Your task to perform on an android device: remove spam from my inbox in the gmail app Image 0: 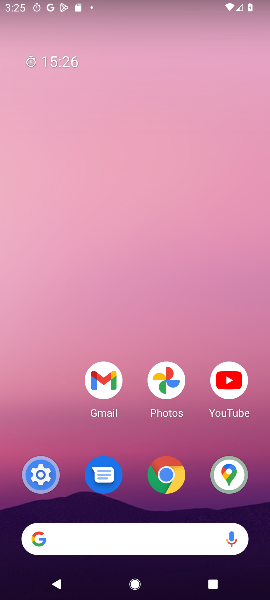
Step 0: press home button
Your task to perform on an android device: remove spam from my inbox in the gmail app Image 1: 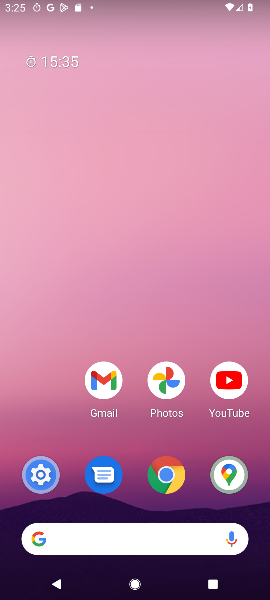
Step 1: drag from (65, 395) to (65, 136)
Your task to perform on an android device: remove spam from my inbox in the gmail app Image 2: 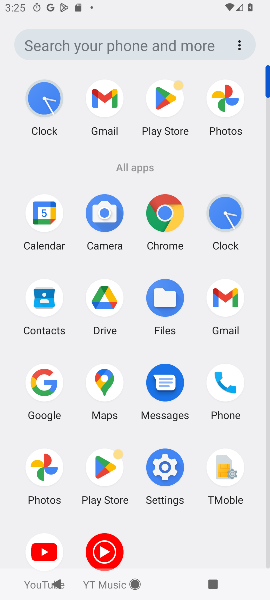
Step 2: click (228, 302)
Your task to perform on an android device: remove spam from my inbox in the gmail app Image 3: 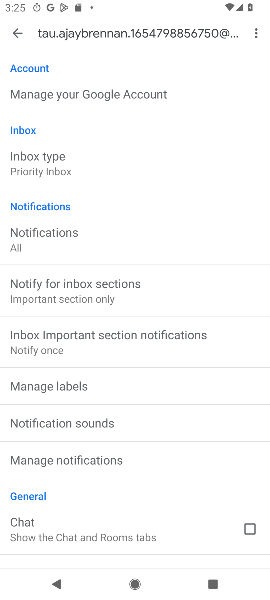
Step 3: drag from (198, 438) to (205, 368)
Your task to perform on an android device: remove spam from my inbox in the gmail app Image 4: 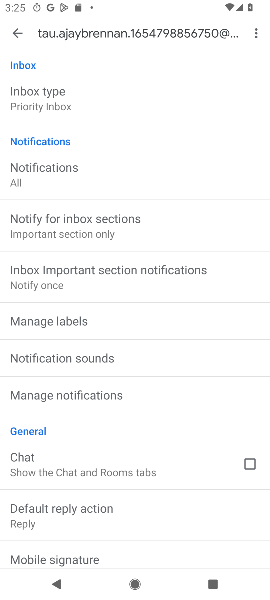
Step 4: press back button
Your task to perform on an android device: remove spam from my inbox in the gmail app Image 5: 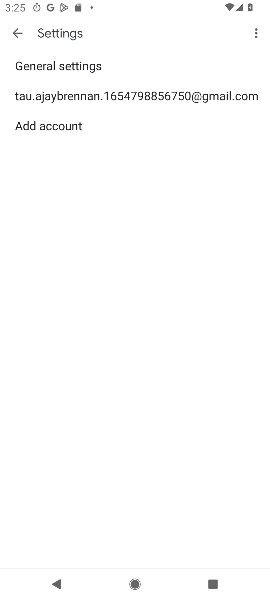
Step 5: press back button
Your task to perform on an android device: remove spam from my inbox in the gmail app Image 6: 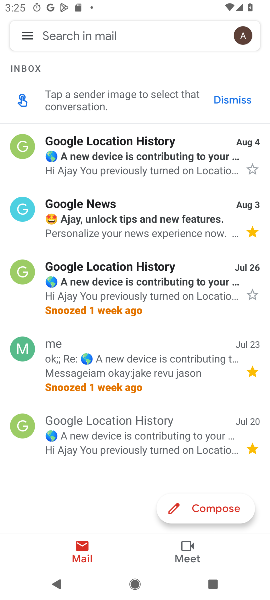
Step 6: click (21, 31)
Your task to perform on an android device: remove spam from my inbox in the gmail app Image 7: 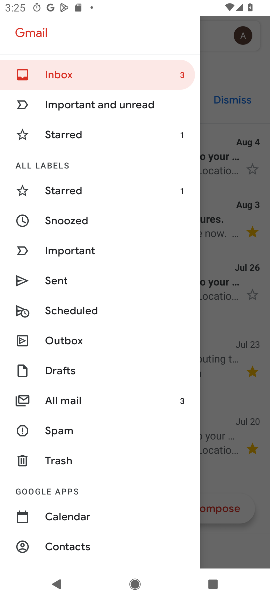
Step 7: drag from (67, 340) to (78, 217)
Your task to perform on an android device: remove spam from my inbox in the gmail app Image 8: 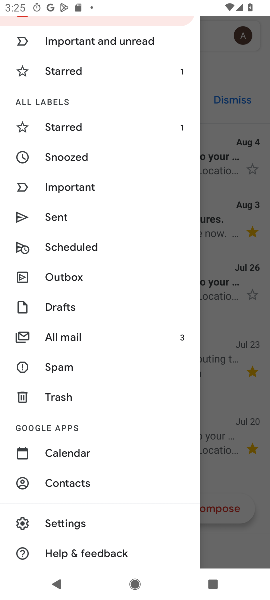
Step 8: drag from (120, 402) to (136, 284)
Your task to perform on an android device: remove spam from my inbox in the gmail app Image 9: 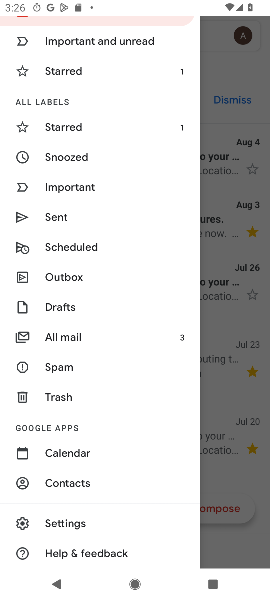
Step 9: click (98, 359)
Your task to perform on an android device: remove spam from my inbox in the gmail app Image 10: 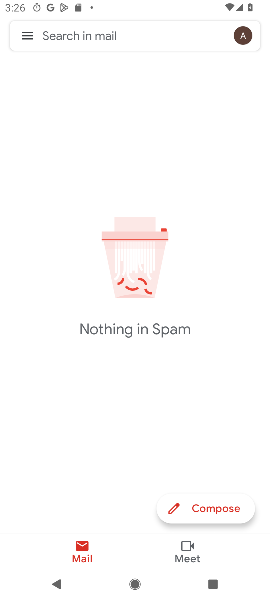
Step 10: task complete